Your task to perform on an android device: Turn off the flashlight Image 0: 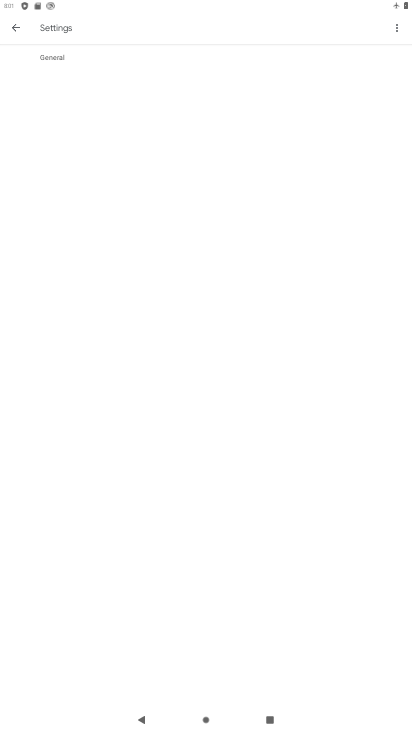
Step 0: task impossible